Your task to perform on an android device: Go to ESPN.com Image 0: 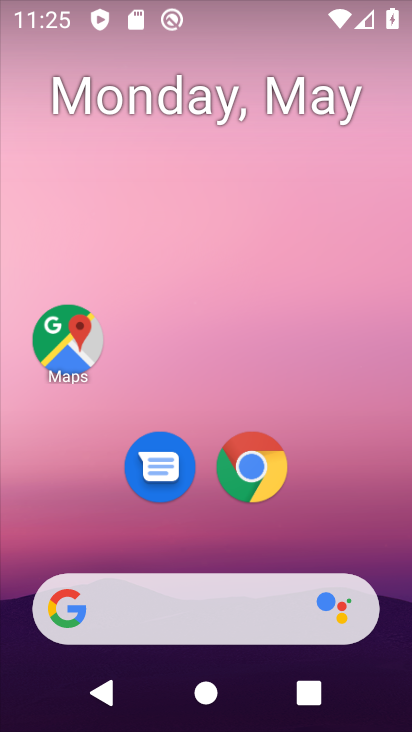
Step 0: click (253, 458)
Your task to perform on an android device: Go to ESPN.com Image 1: 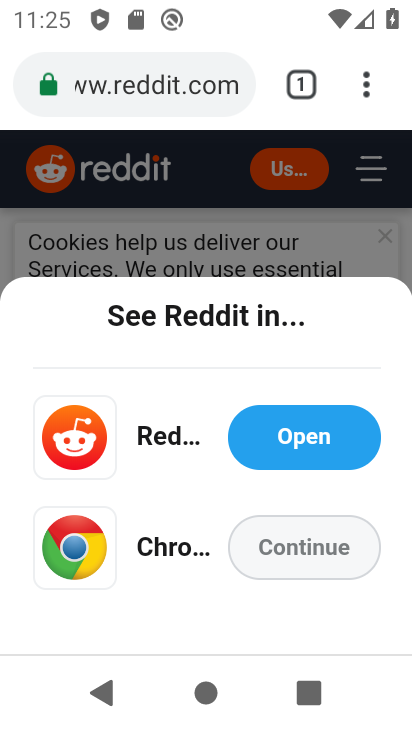
Step 1: click (163, 71)
Your task to perform on an android device: Go to ESPN.com Image 2: 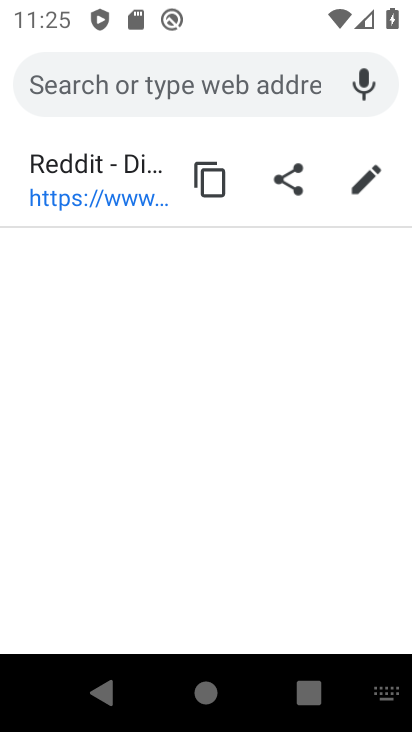
Step 2: type "espn.com"
Your task to perform on an android device: Go to ESPN.com Image 3: 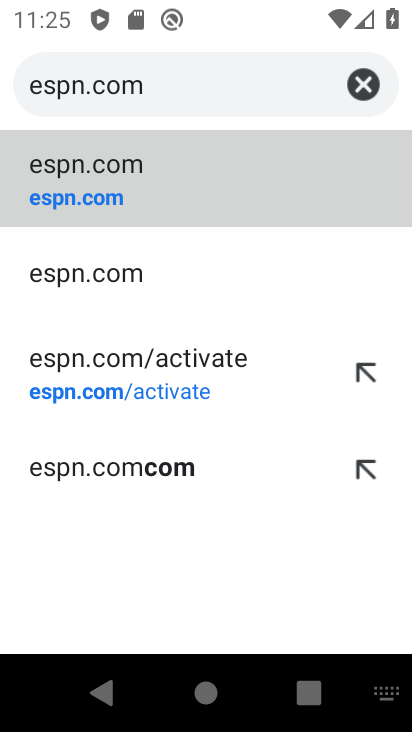
Step 3: click (88, 196)
Your task to perform on an android device: Go to ESPN.com Image 4: 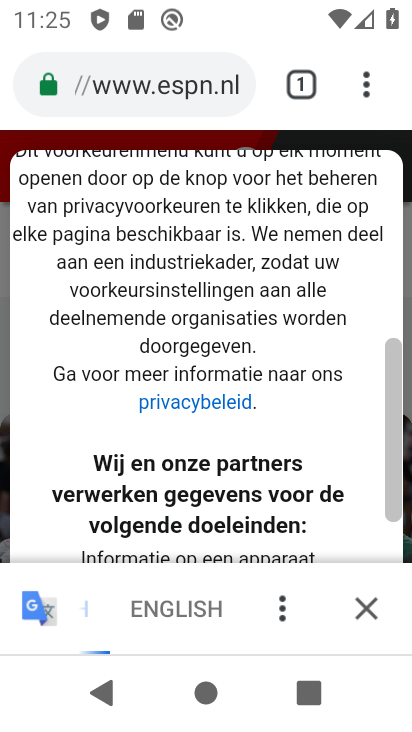
Step 4: task complete